Your task to perform on an android device: change timer sound Image 0: 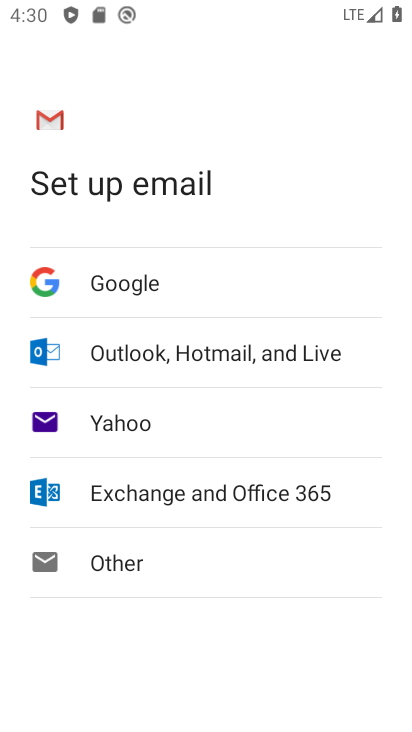
Step 0: press home button
Your task to perform on an android device: change timer sound Image 1: 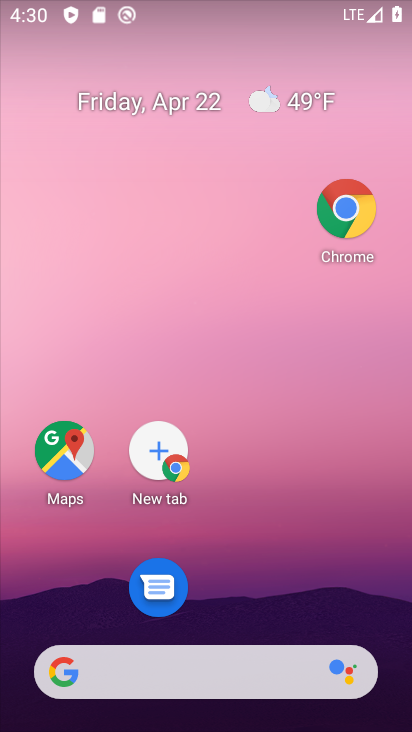
Step 1: drag from (251, 393) to (236, 256)
Your task to perform on an android device: change timer sound Image 2: 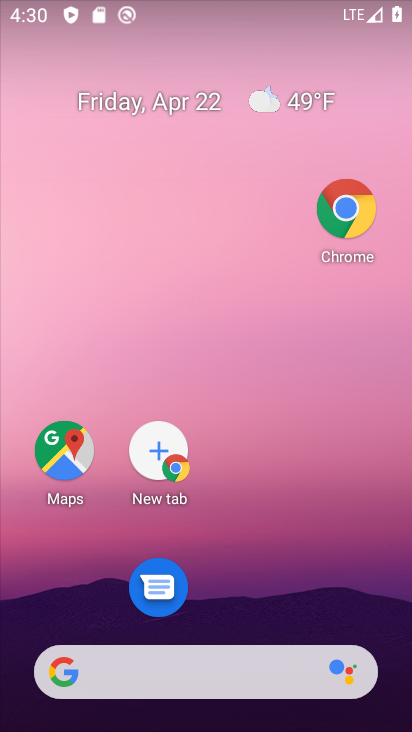
Step 2: drag from (248, 604) to (358, 64)
Your task to perform on an android device: change timer sound Image 3: 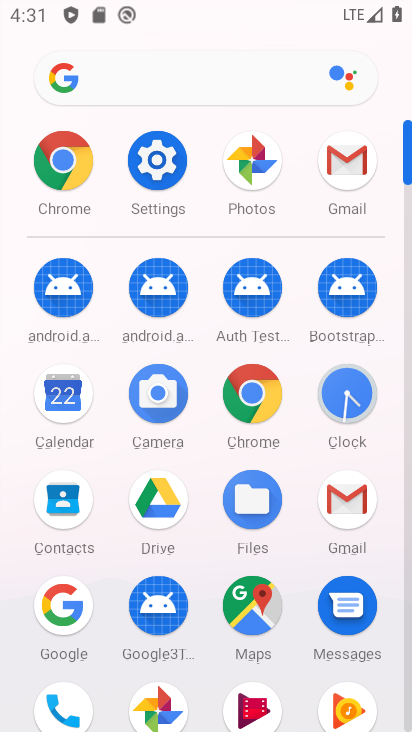
Step 3: click (353, 410)
Your task to perform on an android device: change timer sound Image 4: 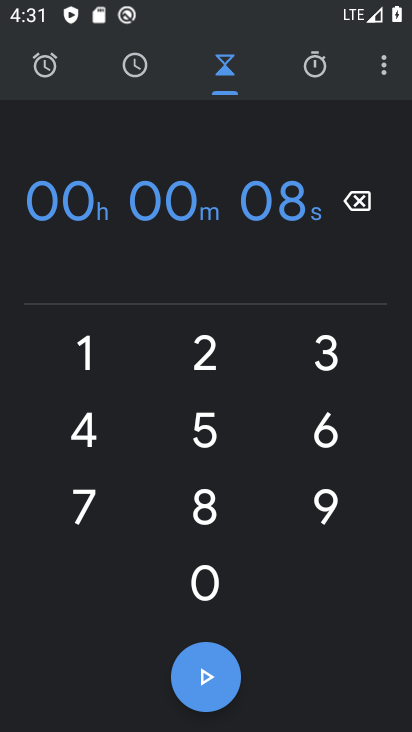
Step 4: click (385, 78)
Your task to perform on an android device: change timer sound Image 5: 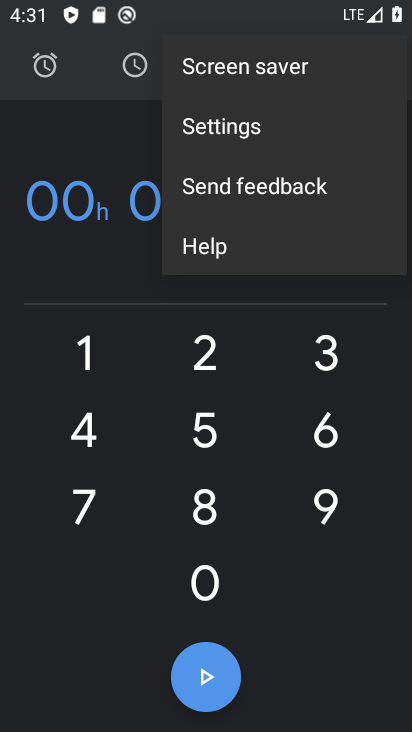
Step 5: click (291, 128)
Your task to perform on an android device: change timer sound Image 6: 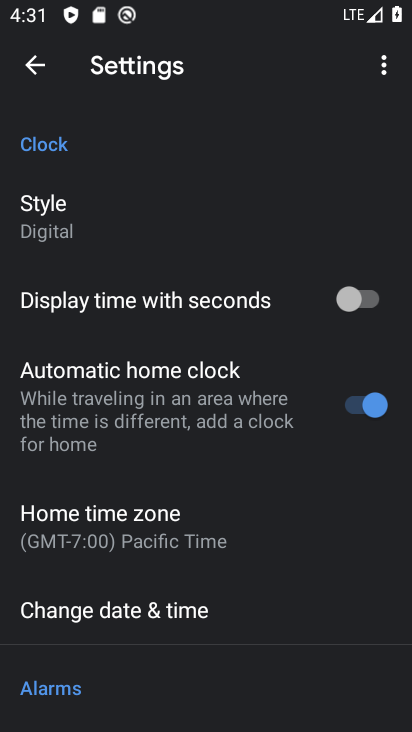
Step 6: drag from (186, 598) to (213, 266)
Your task to perform on an android device: change timer sound Image 7: 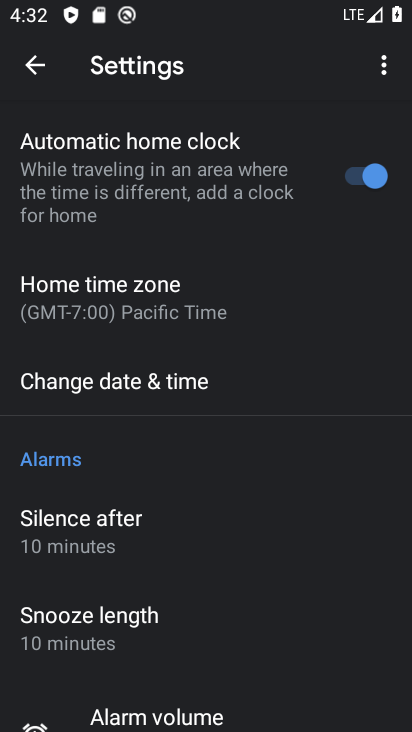
Step 7: drag from (166, 609) to (231, 279)
Your task to perform on an android device: change timer sound Image 8: 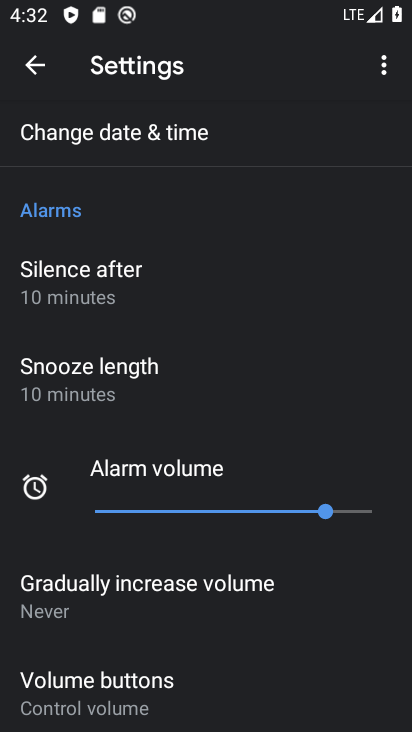
Step 8: drag from (87, 683) to (137, 117)
Your task to perform on an android device: change timer sound Image 9: 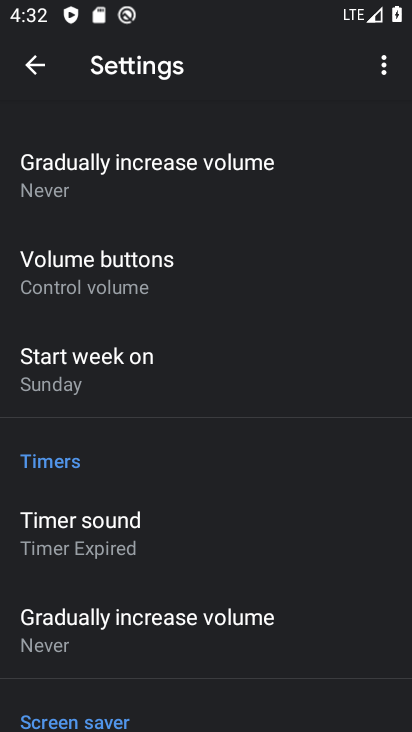
Step 9: click (100, 531)
Your task to perform on an android device: change timer sound Image 10: 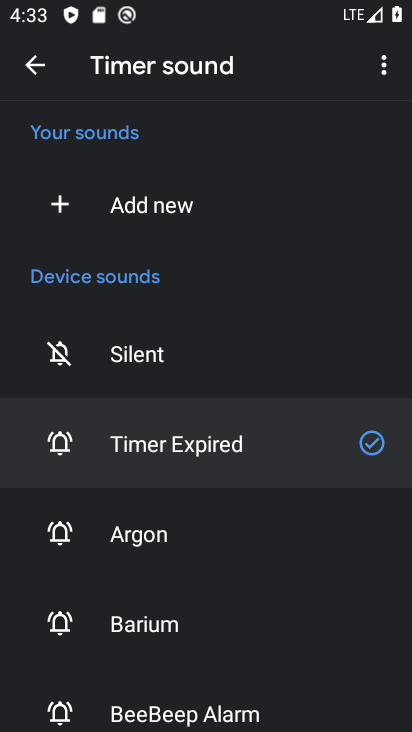
Step 10: click (162, 658)
Your task to perform on an android device: change timer sound Image 11: 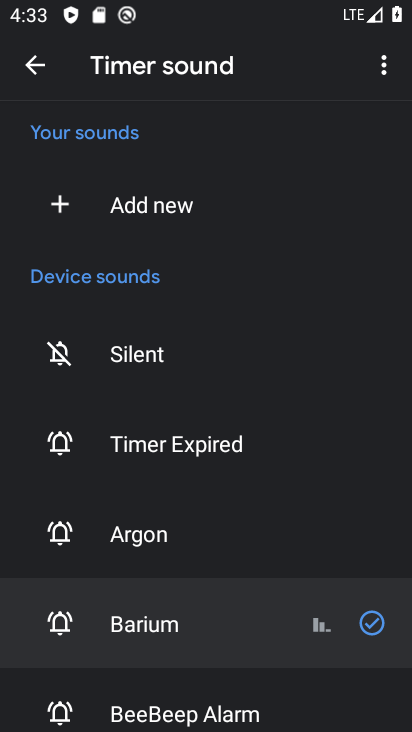
Step 11: task complete